Your task to perform on an android device: check google app version Image 0: 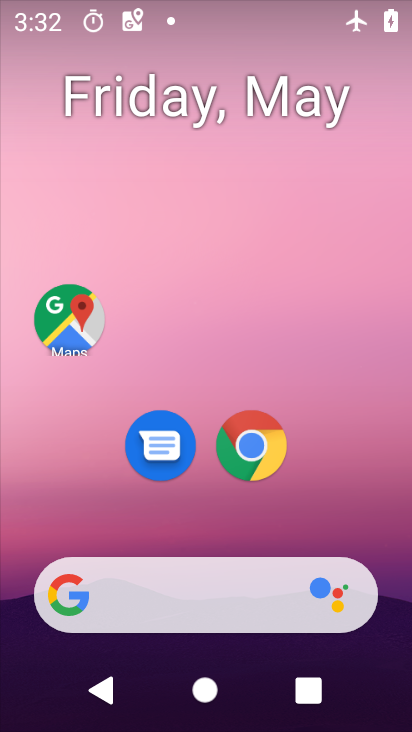
Step 0: drag from (249, 577) to (291, 208)
Your task to perform on an android device: check google app version Image 1: 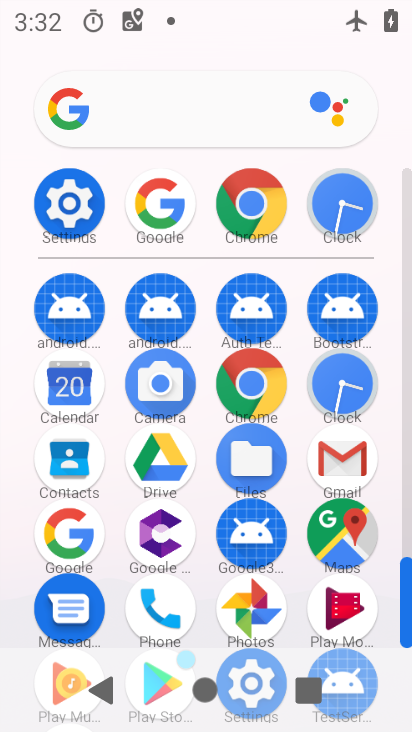
Step 1: drag from (188, 477) to (215, 302)
Your task to perform on an android device: check google app version Image 2: 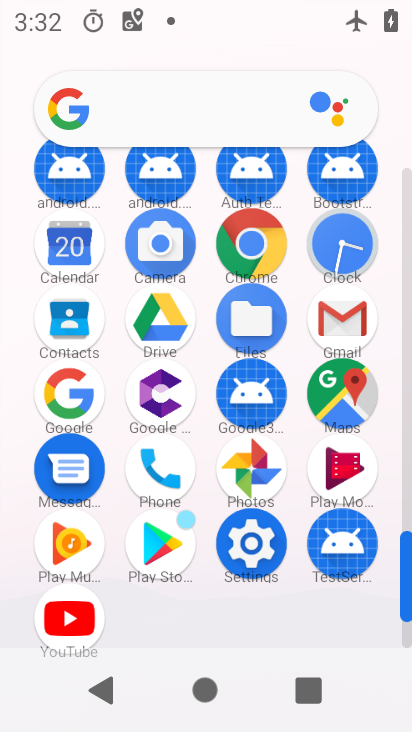
Step 2: click (91, 409)
Your task to perform on an android device: check google app version Image 3: 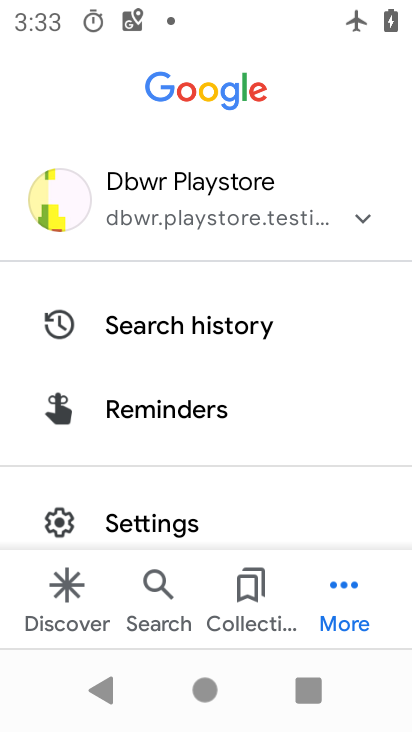
Step 3: drag from (217, 417) to (276, 126)
Your task to perform on an android device: check google app version Image 4: 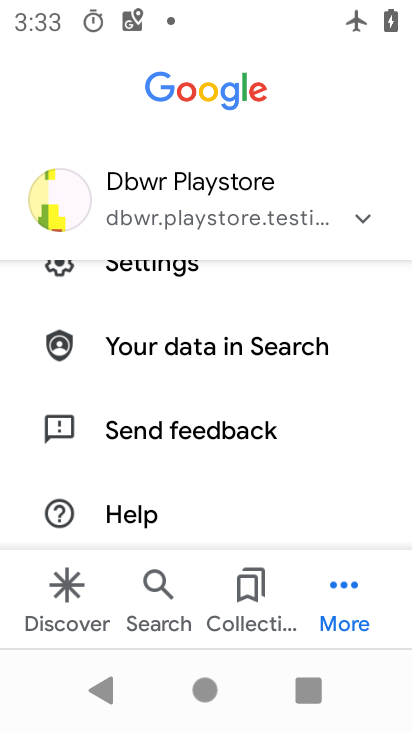
Step 4: drag from (230, 477) to (284, 188)
Your task to perform on an android device: check google app version Image 5: 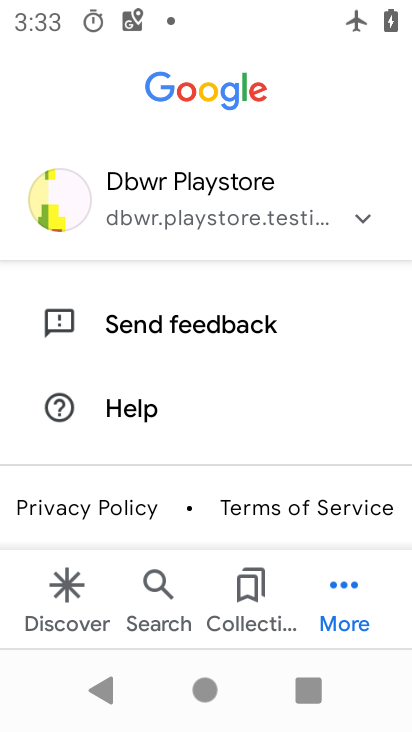
Step 5: drag from (225, 455) to (289, 187)
Your task to perform on an android device: check google app version Image 6: 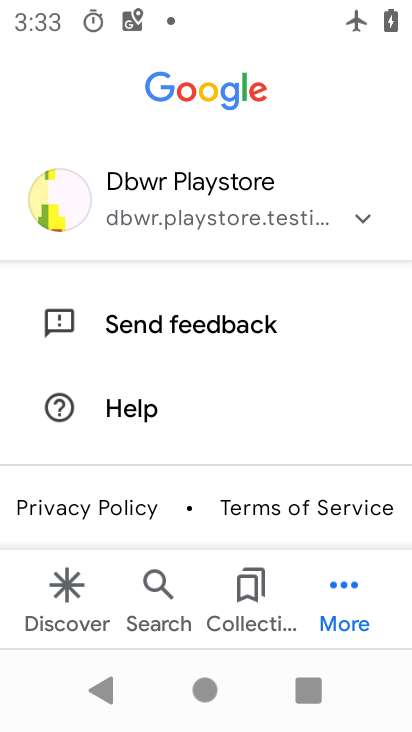
Step 6: drag from (251, 424) to (253, 593)
Your task to perform on an android device: check google app version Image 7: 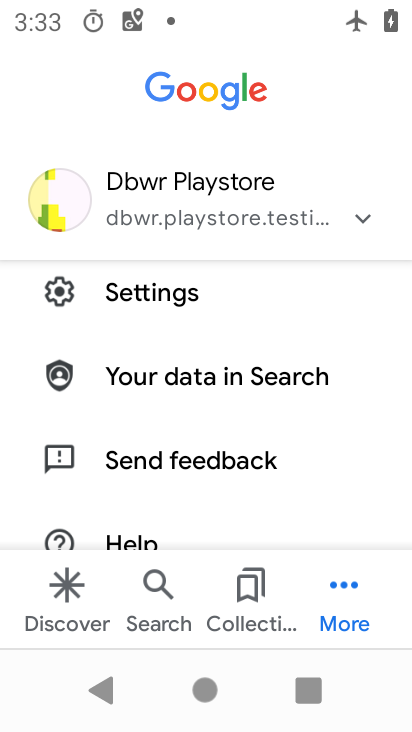
Step 7: click (243, 306)
Your task to perform on an android device: check google app version Image 8: 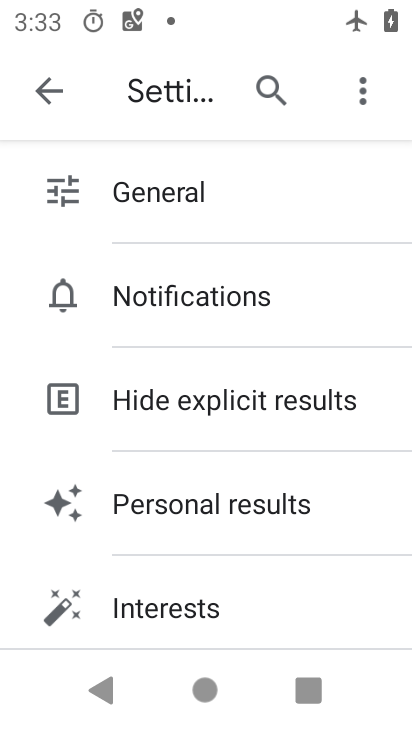
Step 8: drag from (212, 505) to (279, 169)
Your task to perform on an android device: check google app version Image 9: 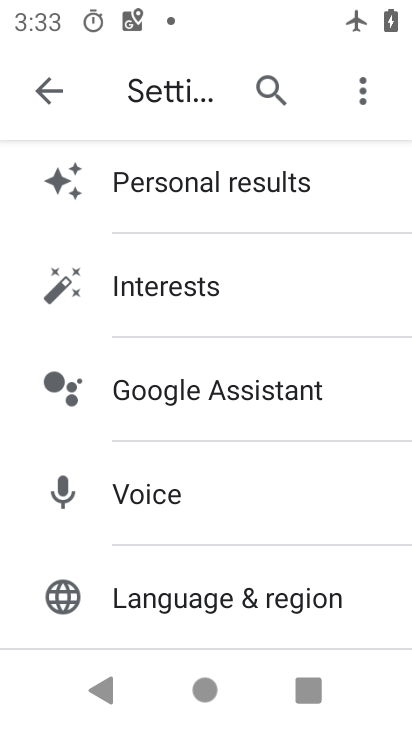
Step 9: drag from (178, 563) to (218, 287)
Your task to perform on an android device: check google app version Image 10: 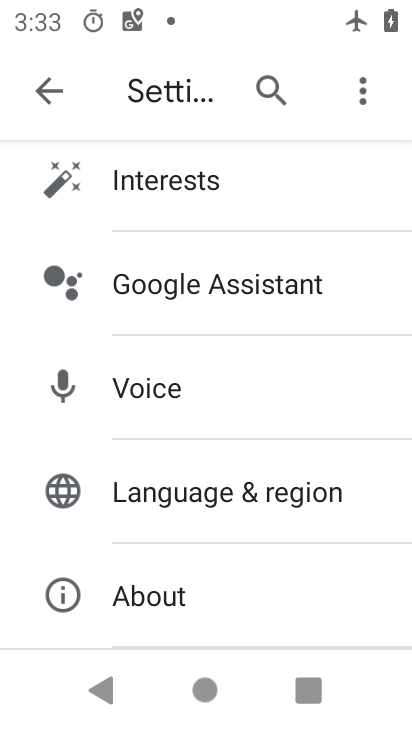
Step 10: click (170, 612)
Your task to perform on an android device: check google app version Image 11: 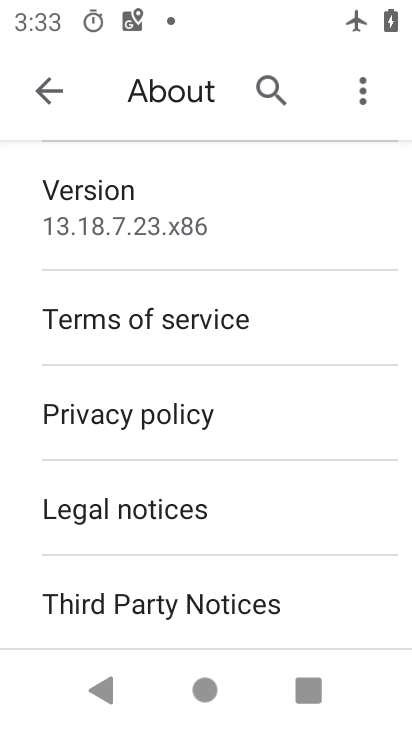
Step 11: task complete